Your task to perform on an android device: check out phone information Image 0: 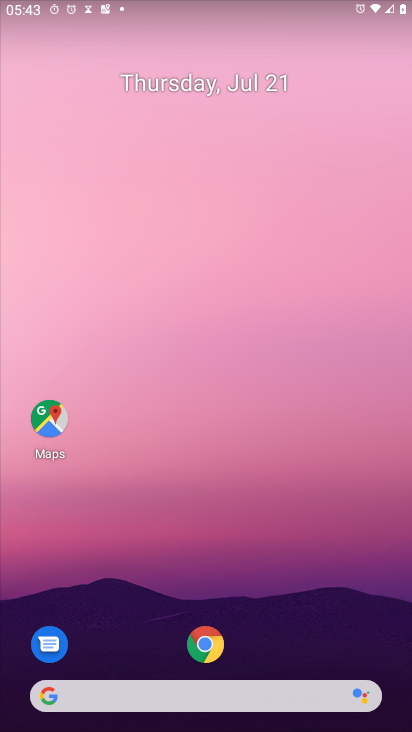
Step 0: press home button
Your task to perform on an android device: check out phone information Image 1: 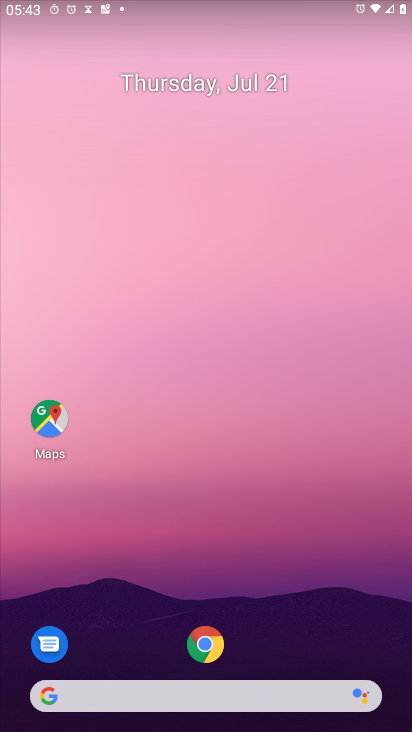
Step 1: drag from (284, 664) to (263, 210)
Your task to perform on an android device: check out phone information Image 2: 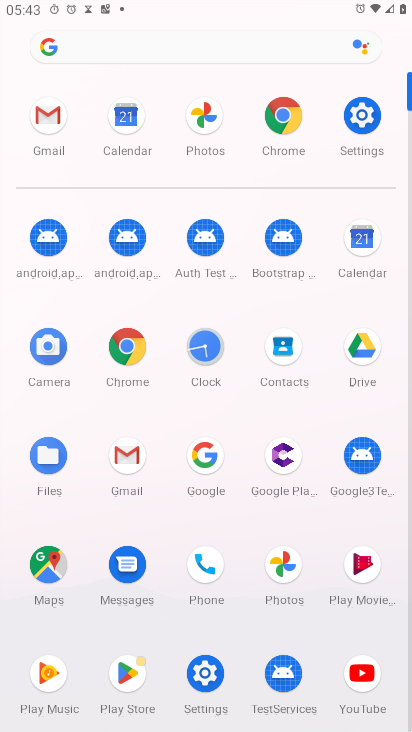
Step 2: click (372, 115)
Your task to perform on an android device: check out phone information Image 3: 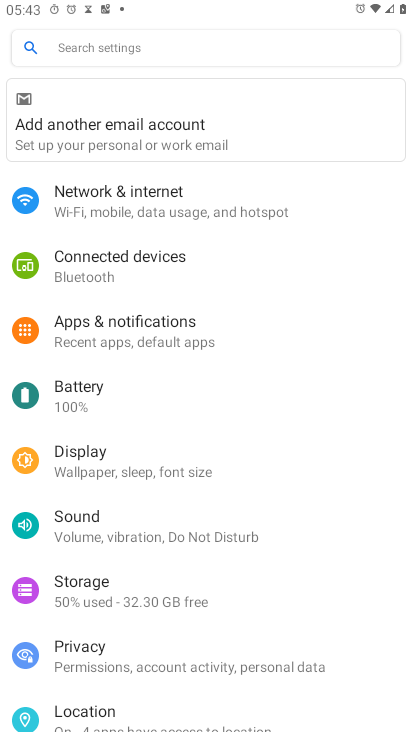
Step 3: drag from (109, 682) to (145, 216)
Your task to perform on an android device: check out phone information Image 4: 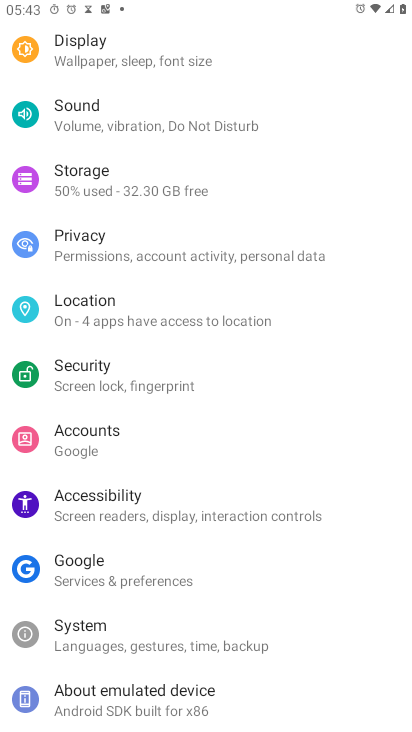
Step 4: click (104, 699)
Your task to perform on an android device: check out phone information Image 5: 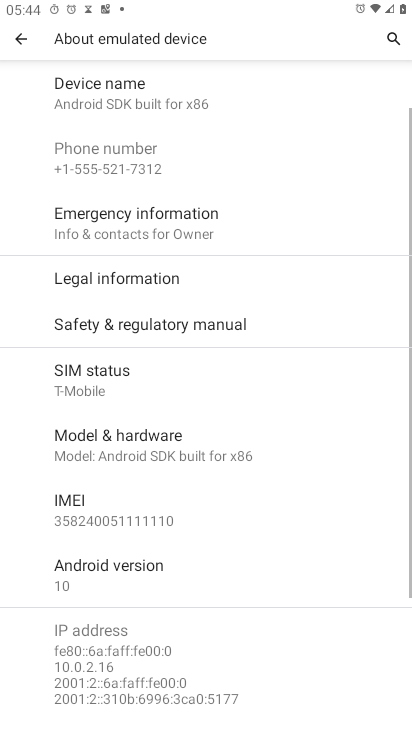
Step 5: task complete